Your task to perform on an android device: change keyboard looks Image 0: 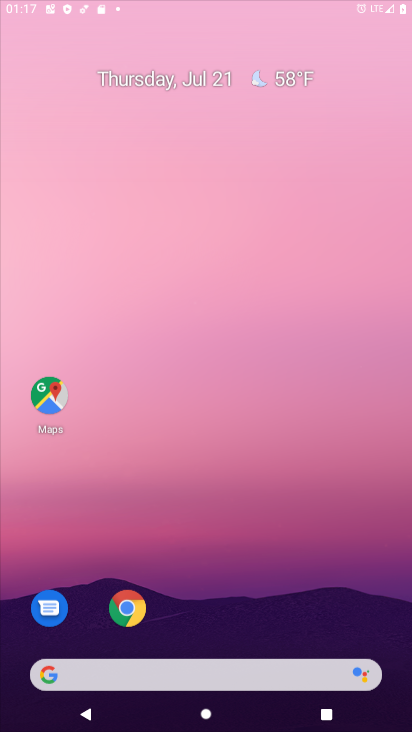
Step 0: press home button
Your task to perform on an android device: change keyboard looks Image 1: 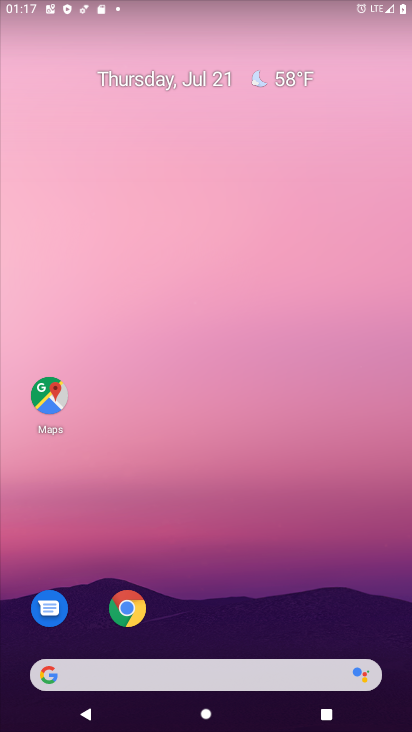
Step 1: drag from (217, 643) to (235, 1)
Your task to perform on an android device: change keyboard looks Image 2: 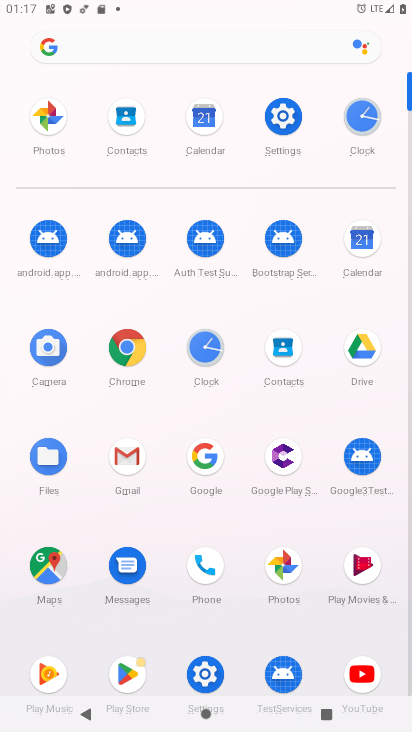
Step 2: click (278, 112)
Your task to perform on an android device: change keyboard looks Image 3: 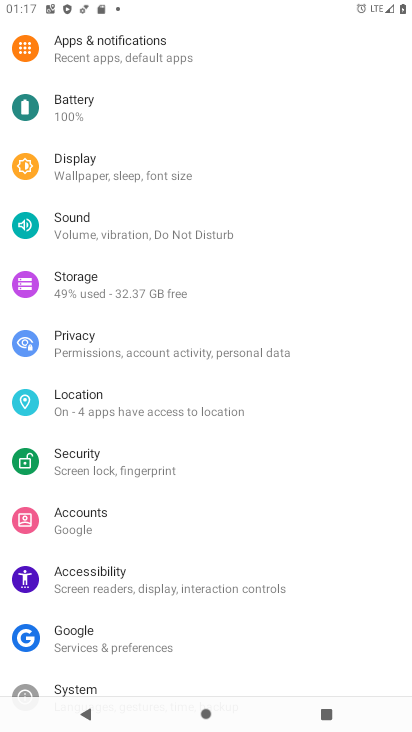
Step 3: drag from (136, 665) to (233, 23)
Your task to perform on an android device: change keyboard looks Image 4: 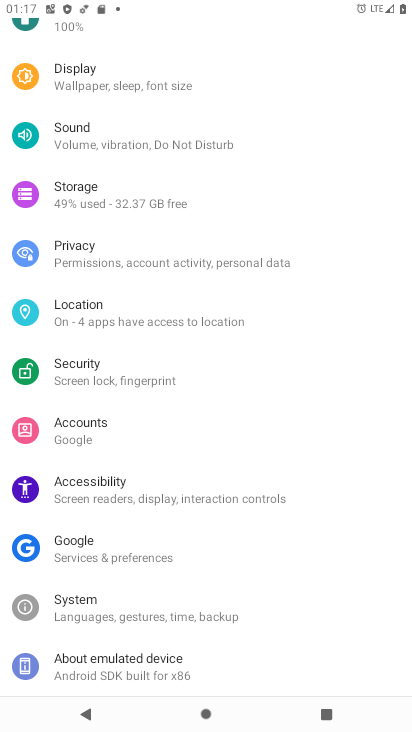
Step 4: click (127, 598)
Your task to perform on an android device: change keyboard looks Image 5: 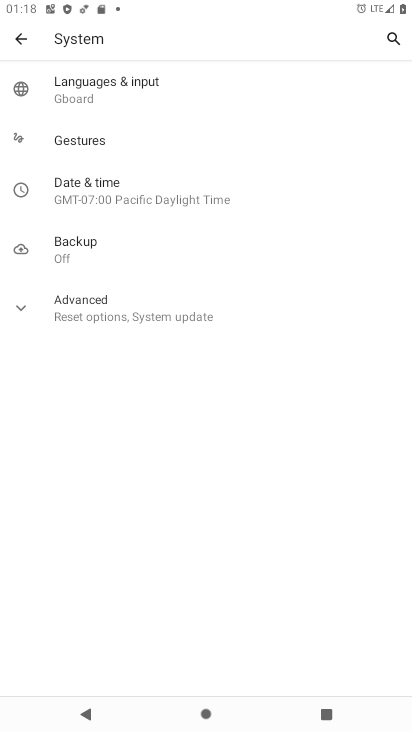
Step 5: click (84, 88)
Your task to perform on an android device: change keyboard looks Image 6: 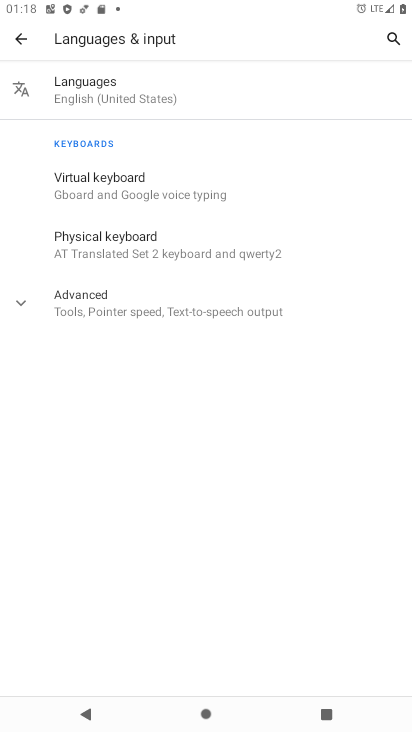
Step 6: click (139, 187)
Your task to perform on an android device: change keyboard looks Image 7: 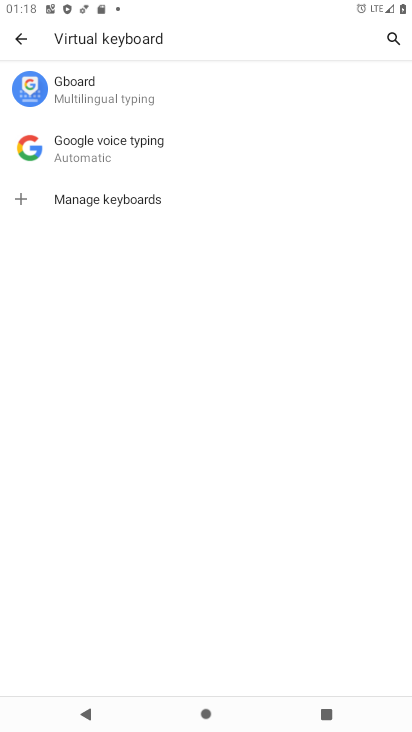
Step 7: click (108, 78)
Your task to perform on an android device: change keyboard looks Image 8: 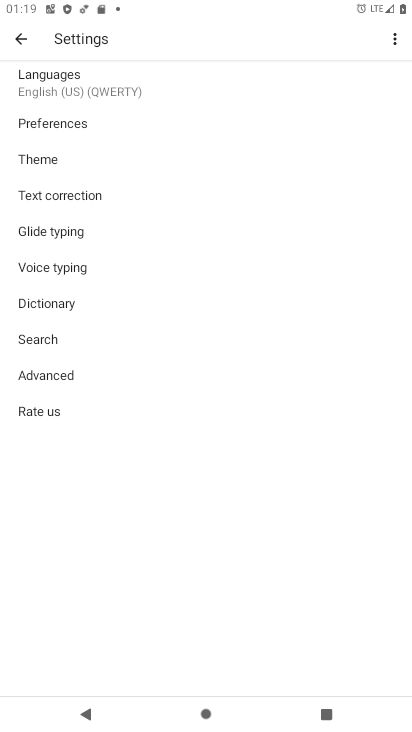
Step 8: click (68, 153)
Your task to perform on an android device: change keyboard looks Image 9: 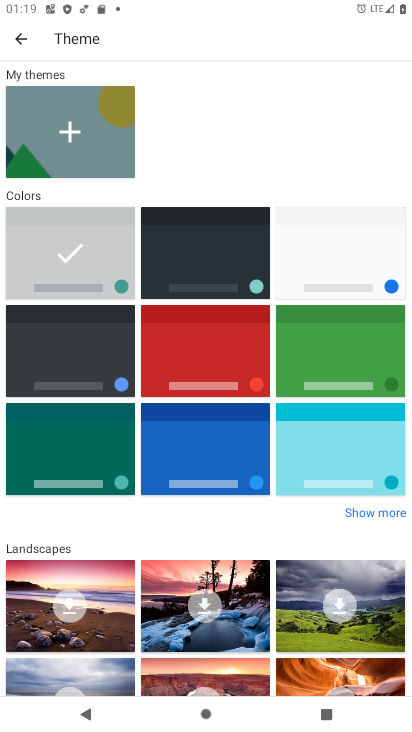
Step 9: click (217, 449)
Your task to perform on an android device: change keyboard looks Image 10: 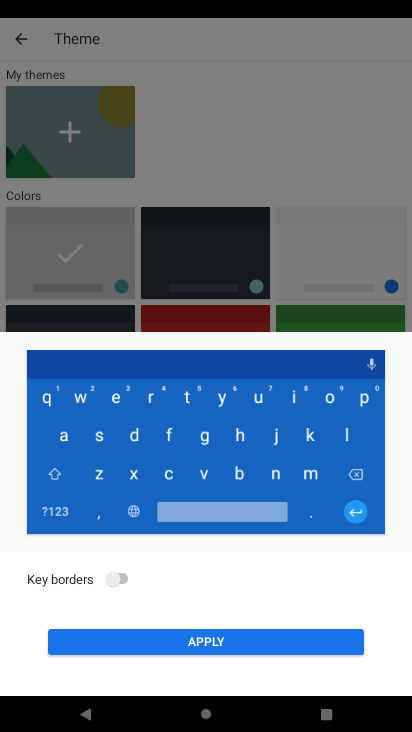
Step 10: click (220, 643)
Your task to perform on an android device: change keyboard looks Image 11: 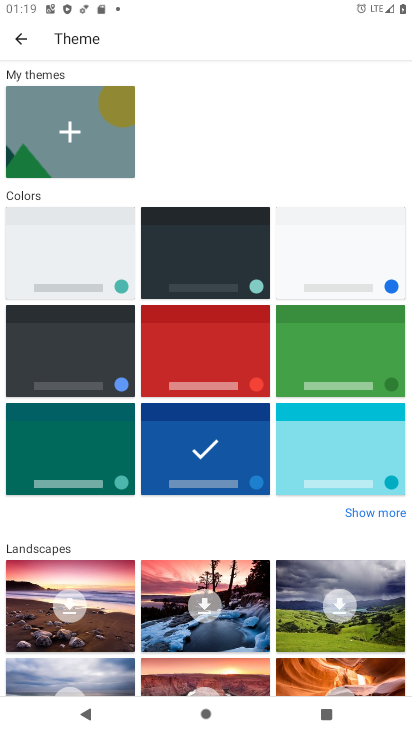
Step 11: task complete